Your task to perform on an android device: What's on the menu at Chick-fil-A? Image 0: 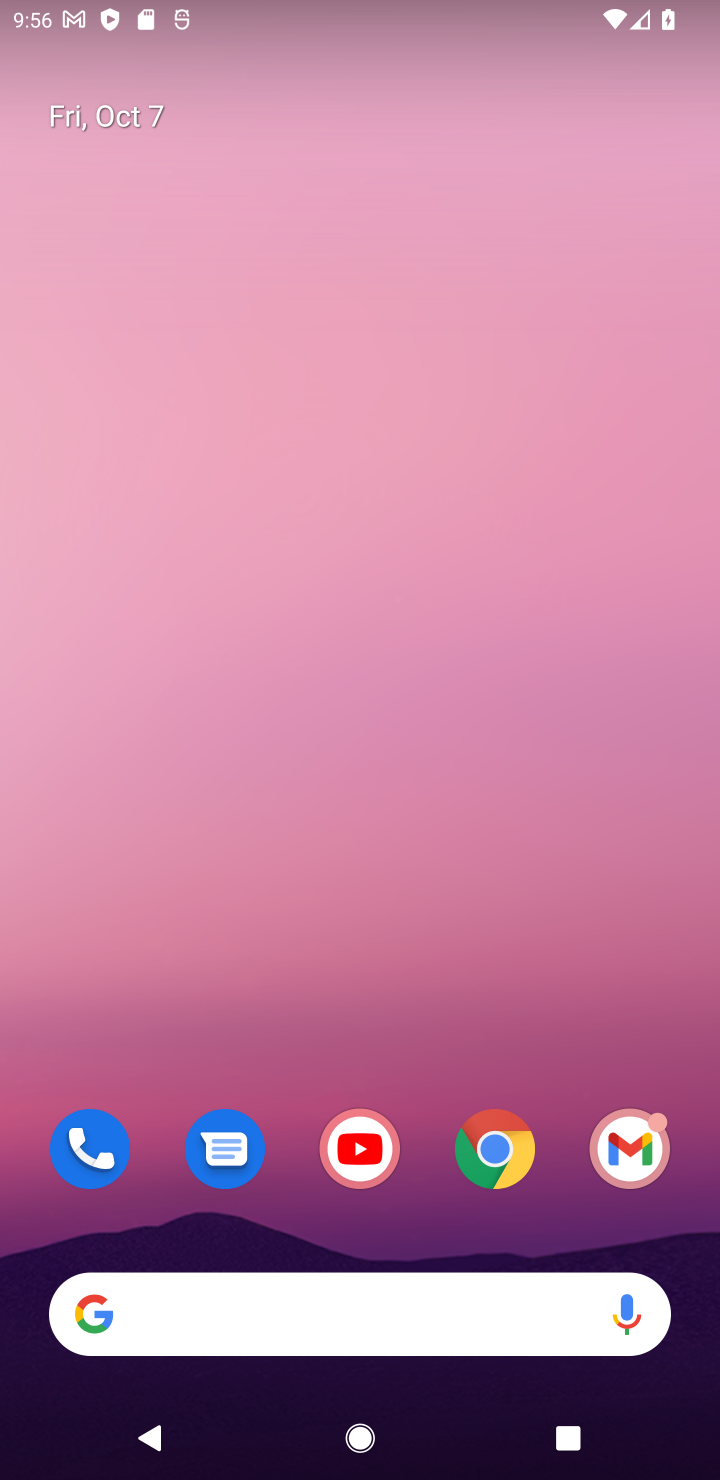
Step 0: click (401, 1323)
Your task to perform on an android device: What's on the menu at Chick-fil-A? Image 1: 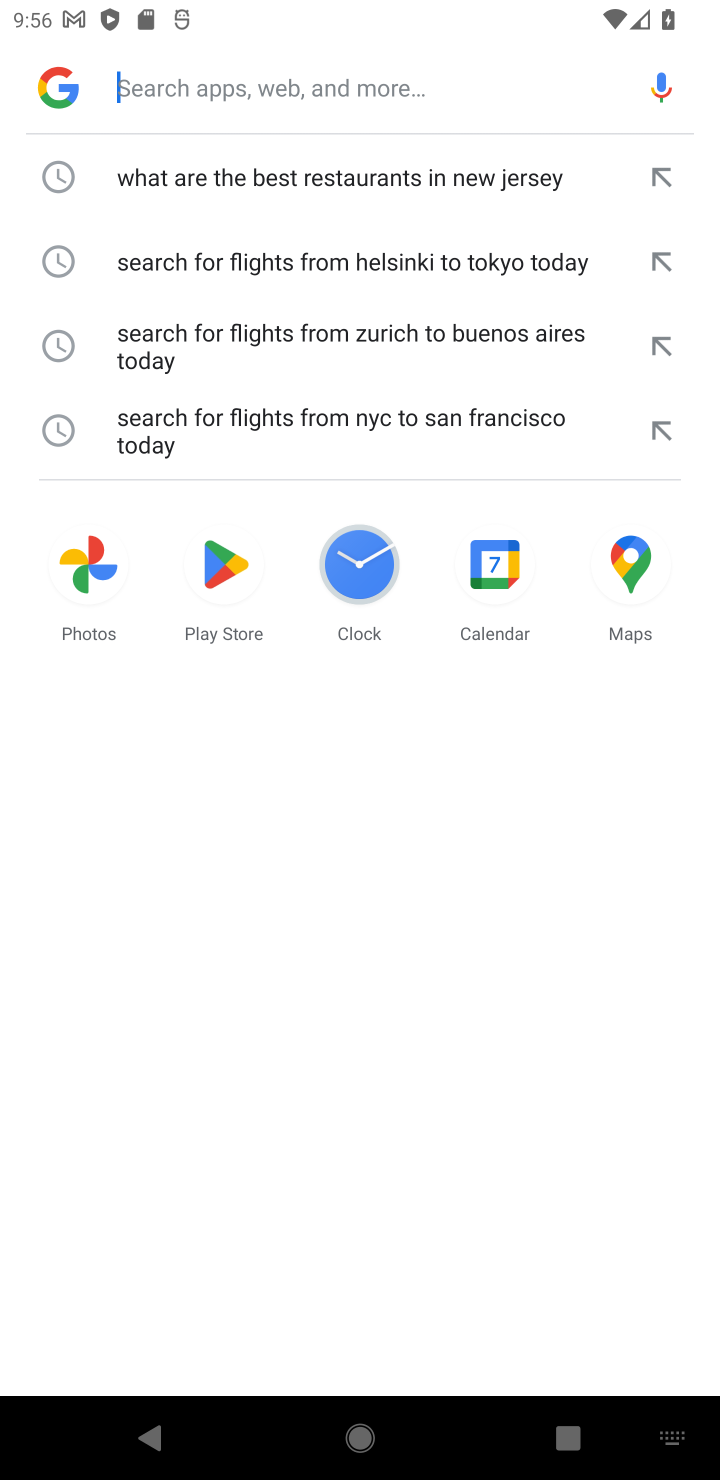
Step 1: type "What's on the menu at Chick-fil-A?"
Your task to perform on an android device: What's on the menu at Chick-fil-A? Image 2: 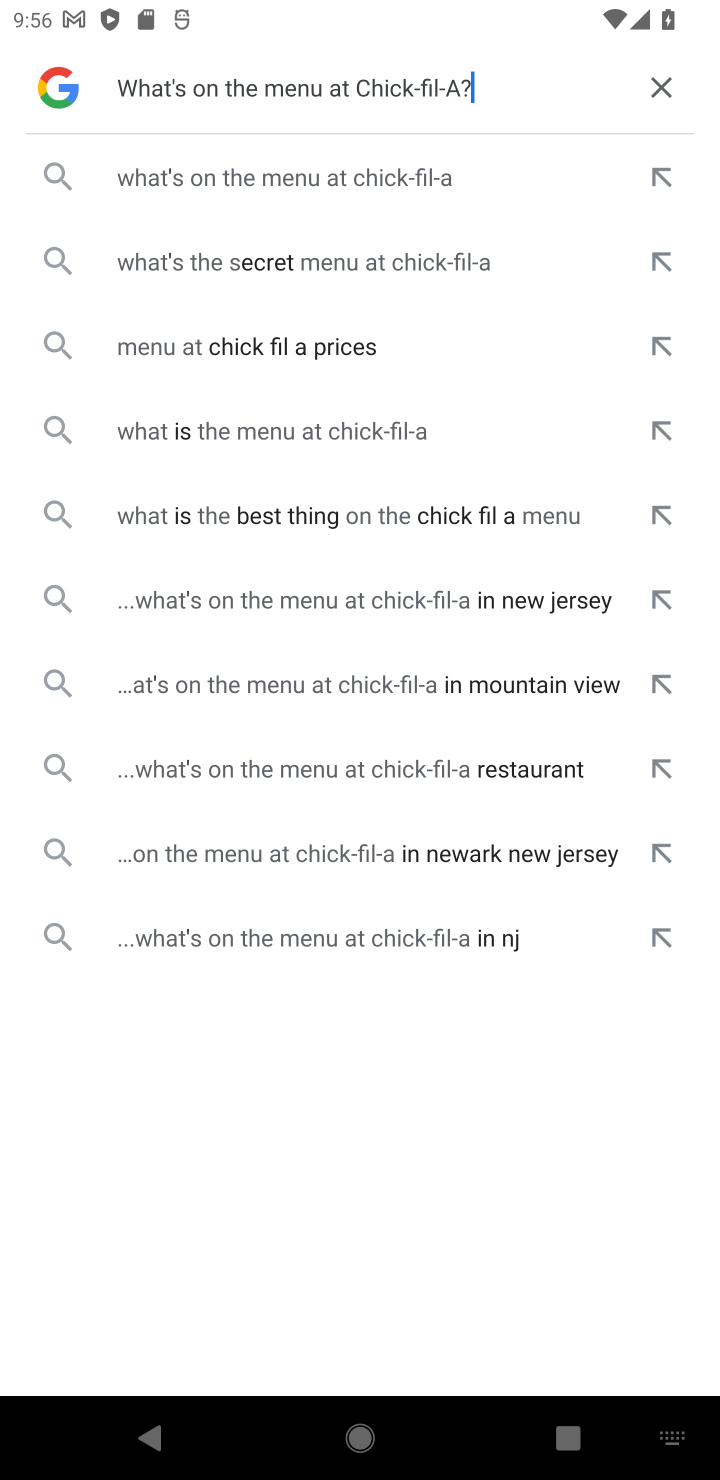
Step 2: click (345, 193)
Your task to perform on an android device: What's on the menu at Chick-fil-A? Image 3: 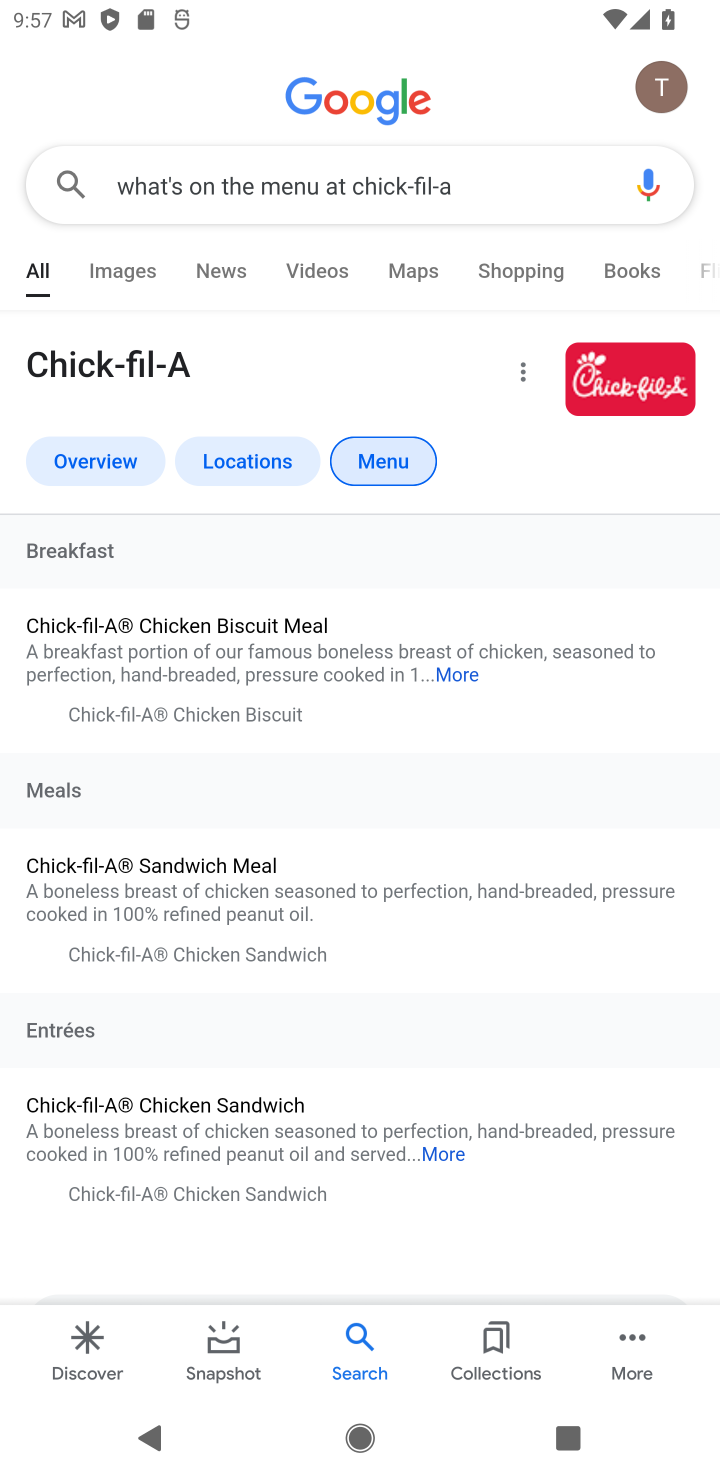
Step 3: task complete